Your task to perform on an android device: Search for razer blade on amazon, select the first entry, add it to the cart, then select checkout. Image 0: 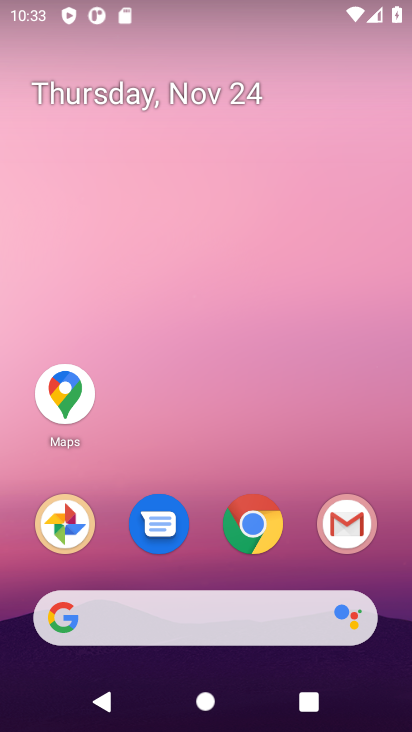
Step 0: click (256, 535)
Your task to perform on an android device: Search for razer blade on amazon, select the first entry, add it to the cart, then select checkout. Image 1: 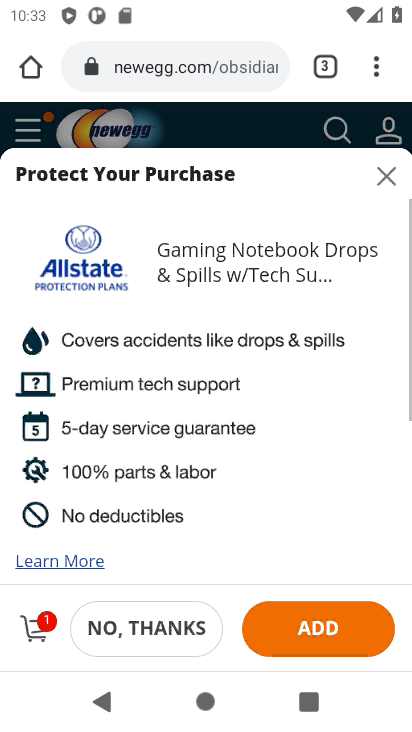
Step 1: click (171, 67)
Your task to perform on an android device: Search for razer blade on amazon, select the first entry, add it to the cart, then select checkout. Image 2: 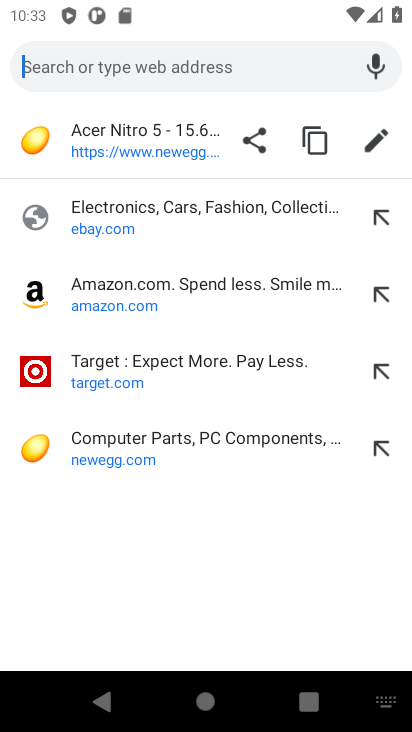
Step 2: click (77, 297)
Your task to perform on an android device: Search for razer blade on amazon, select the first entry, add it to the cart, then select checkout. Image 3: 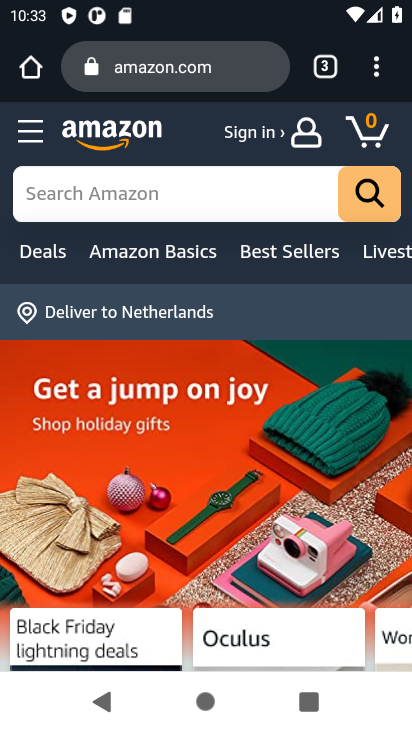
Step 3: click (117, 196)
Your task to perform on an android device: Search for razer blade on amazon, select the first entry, add it to the cart, then select checkout. Image 4: 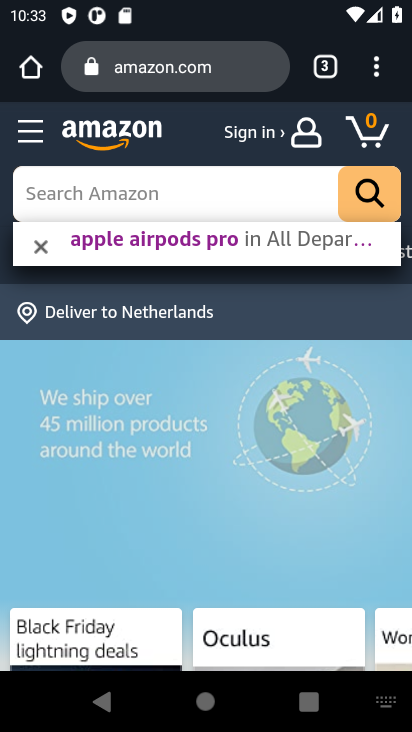
Step 4: type "razer blade"
Your task to perform on an android device: Search for razer blade on amazon, select the first entry, add it to the cart, then select checkout. Image 5: 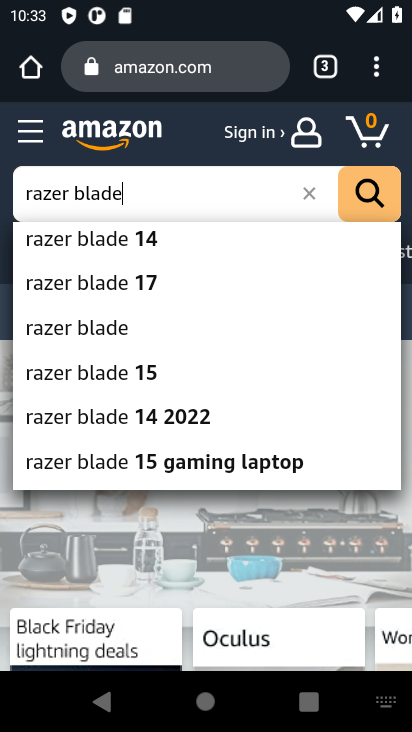
Step 5: click (97, 248)
Your task to perform on an android device: Search for razer blade on amazon, select the first entry, add it to the cart, then select checkout. Image 6: 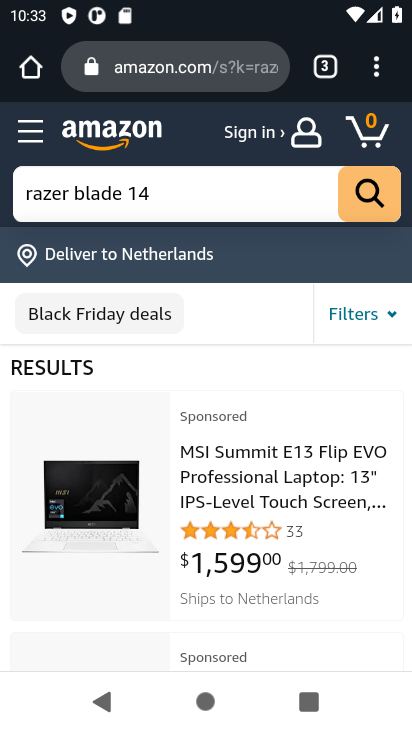
Step 6: task complete